Your task to perform on an android device: Is it going to rain this weekend? Image 0: 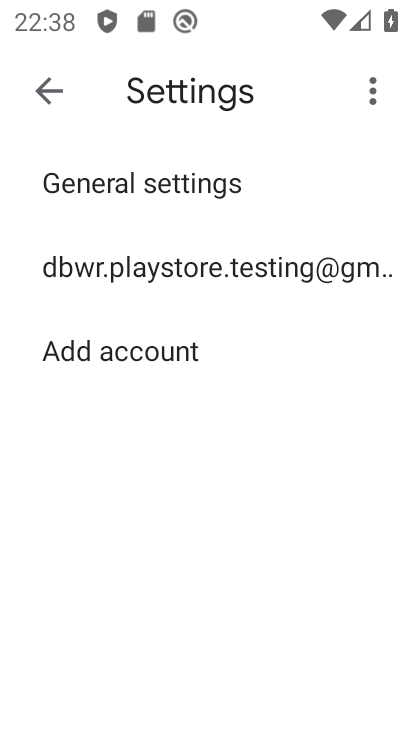
Step 0: press home button
Your task to perform on an android device: Is it going to rain this weekend? Image 1: 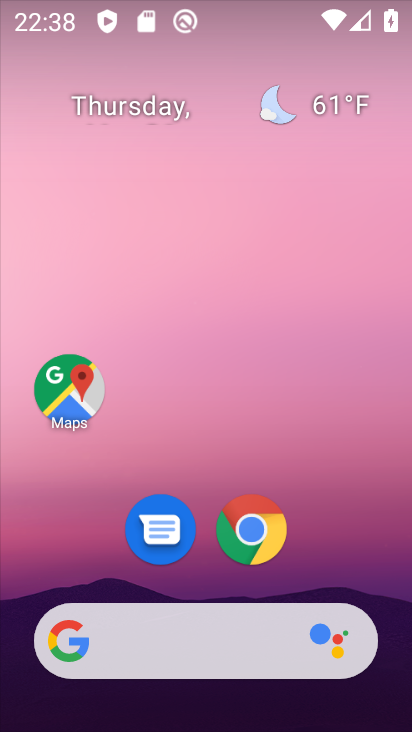
Step 1: drag from (331, 564) to (298, 6)
Your task to perform on an android device: Is it going to rain this weekend? Image 2: 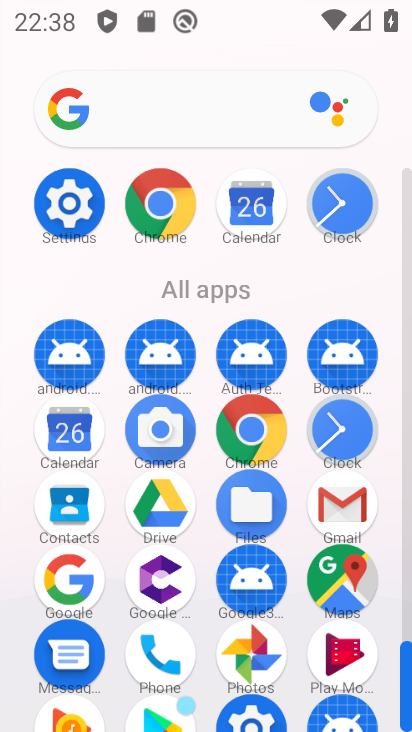
Step 2: click (267, 202)
Your task to perform on an android device: Is it going to rain this weekend? Image 3: 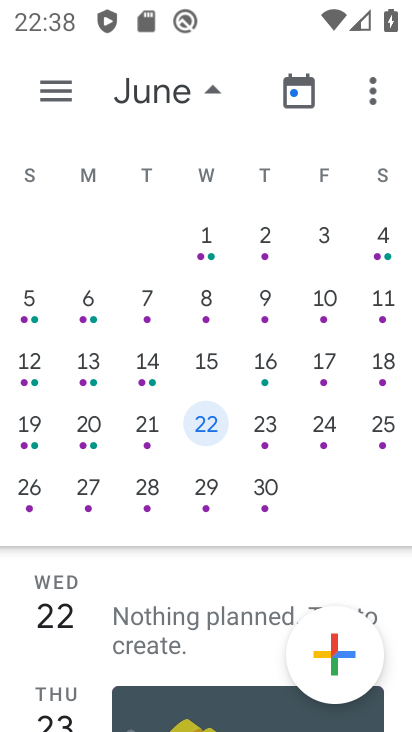
Step 3: press home button
Your task to perform on an android device: Is it going to rain this weekend? Image 4: 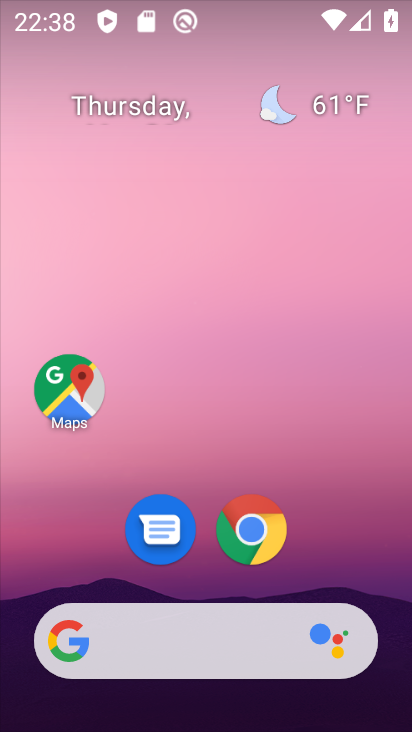
Step 4: click (202, 647)
Your task to perform on an android device: Is it going to rain this weekend? Image 5: 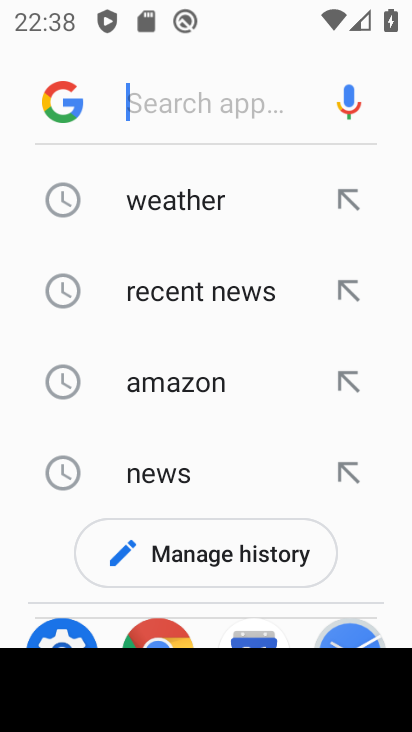
Step 5: click (214, 206)
Your task to perform on an android device: Is it going to rain this weekend? Image 6: 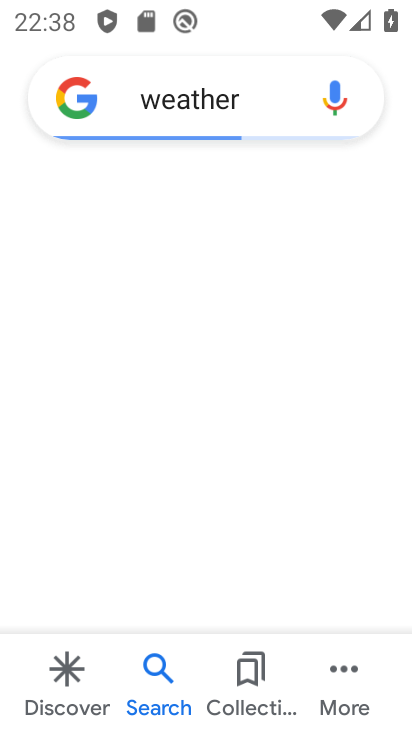
Step 6: task complete